Your task to perform on an android device: open app "Pandora - Music & Podcasts" (install if not already installed) Image 0: 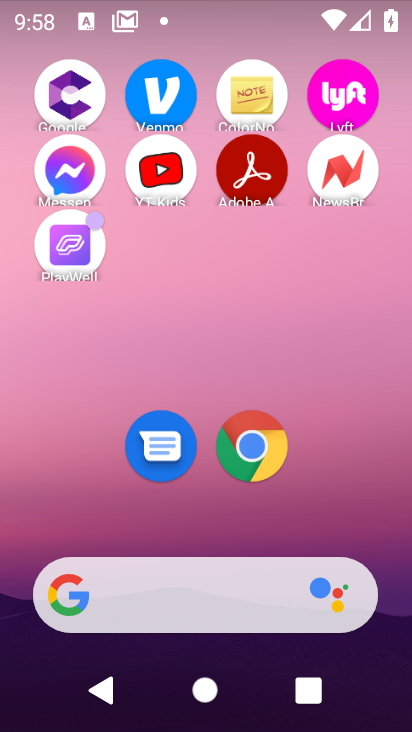
Step 0: drag from (193, 534) to (294, 1)
Your task to perform on an android device: open app "Pandora - Music & Podcasts" (install if not already installed) Image 1: 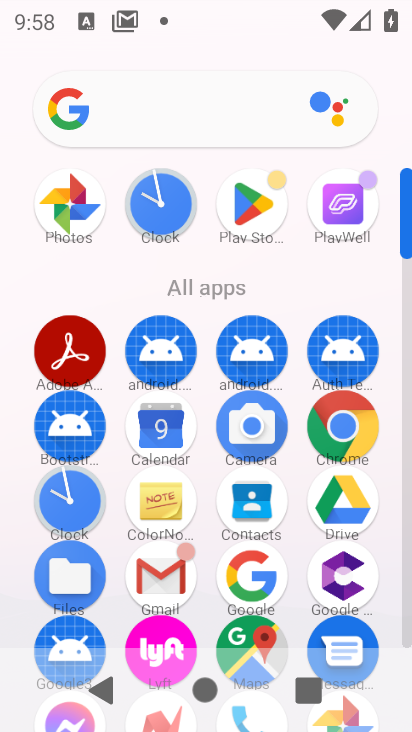
Step 1: click (254, 206)
Your task to perform on an android device: open app "Pandora - Music & Podcasts" (install if not already installed) Image 2: 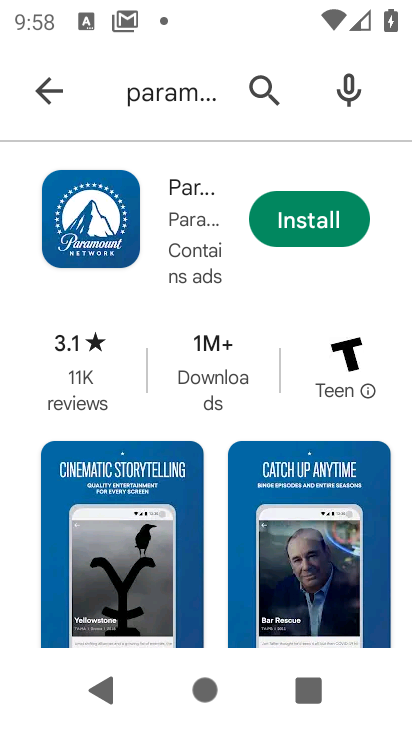
Step 2: click (263, 92)
Your task to perform on an android device: open app "Pandora - Music & Podcasts" (install if not already installed) Image 3: 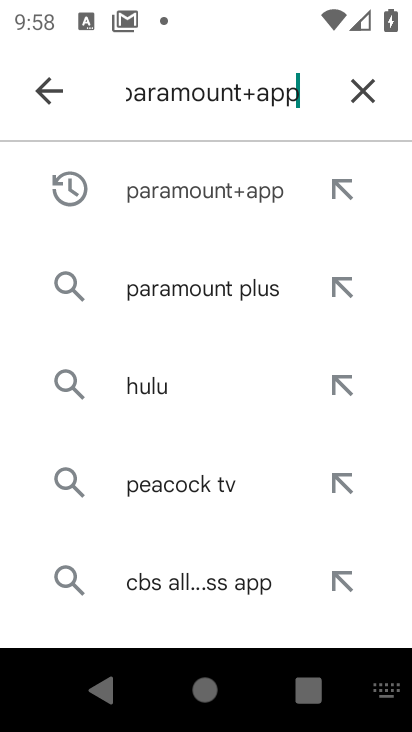
Step 3: click (348, 92)
Your task to perform on an android device: open app "Pandora - Music & Podcasts" (install if not already installed) Image 4: 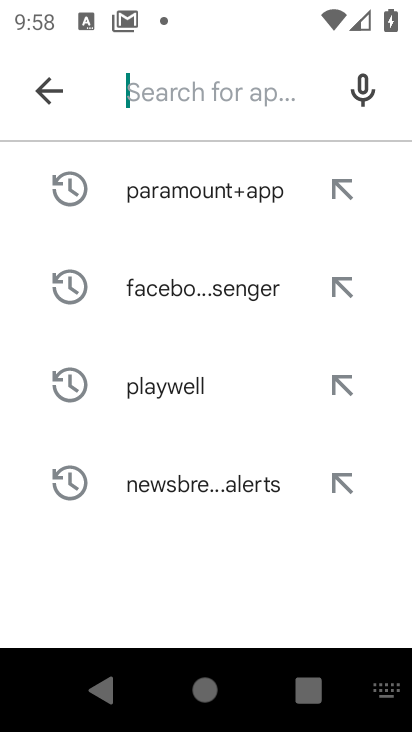
Step 4: click (167, 95)
Your task to perform on an android device: open app "Pandora - Music & Podcasts" (install if not already installed) Image 5: 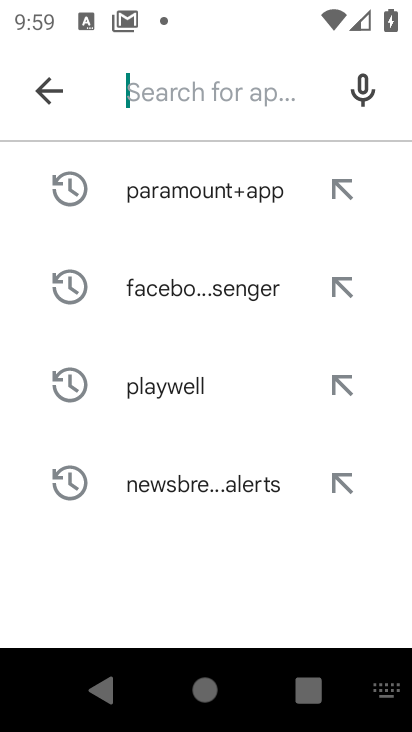
Step 5: type "pandora"
Your task to perform on an android device: open app "Pandora - Music & Podcasts" (install if not already installed) Image 6: 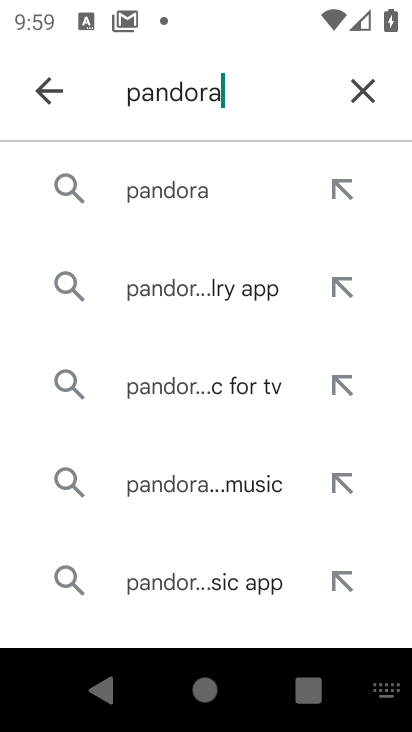
Step 6: click (186, 184)
Your task to perform on an android device: open app "Pandora - Music & Podcasts" (install if not already installed) Image 7: 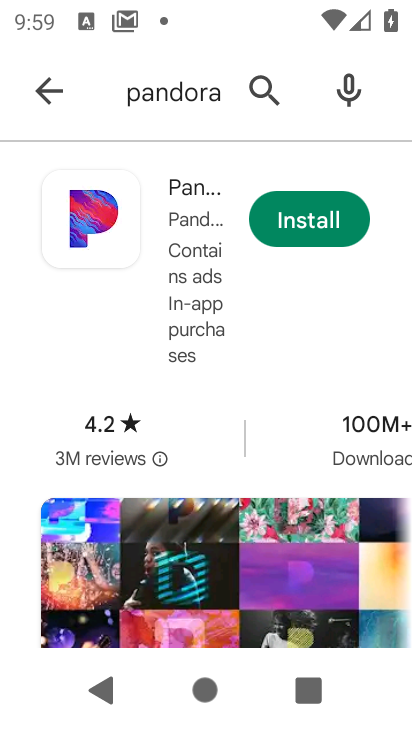
Step 7: click (322, 231)
Your task to perform on an android device: open app "Pandora - Music & Podcasts" (install if not already installed) Image 8: 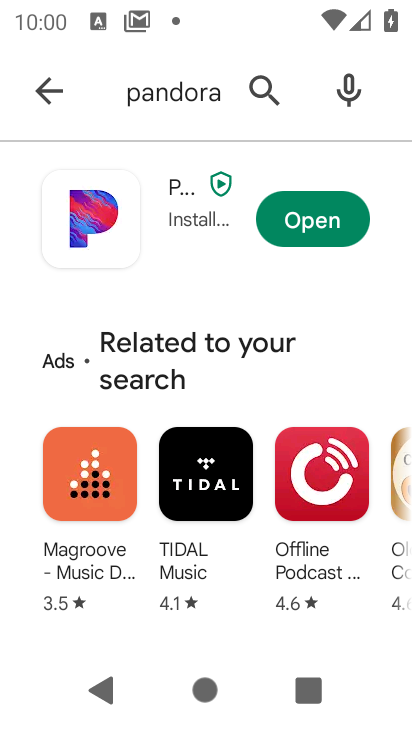
Step 8: click (314, 226)
Your task to perform on an android device: open app "Pandora - Music & Podcasts" (install if not already installed) Image 9: 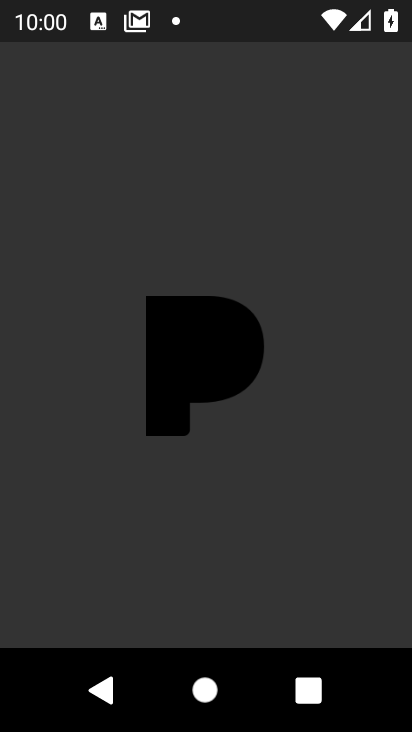
Step 9: task complete